Your task to perform on an android device: delete browsing data in the chrome app Image 0: 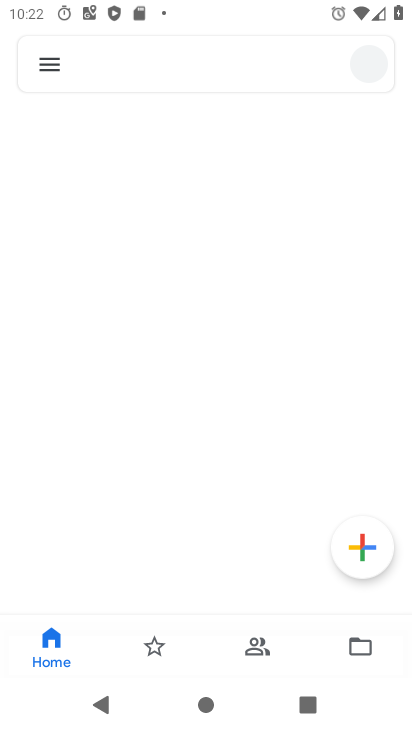
Step 0: drag from (249, 693) to (71, 119)
Your task to perform on an android device: delete browsing data in the chrome app Image 1: 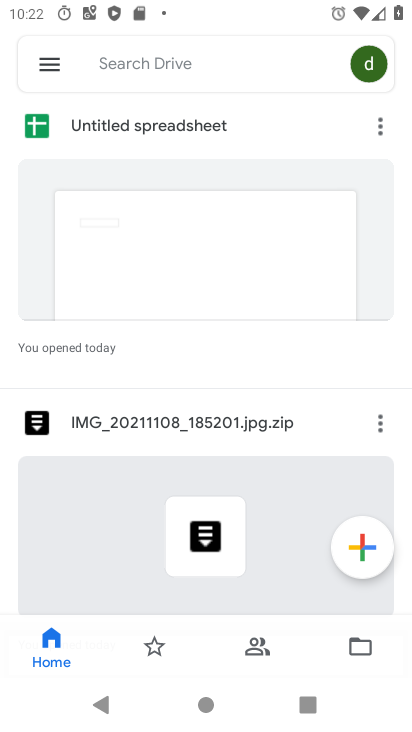
Step 1: press back button
Your task to perform on an android device: delete browsing data in the chrome app Image 2: 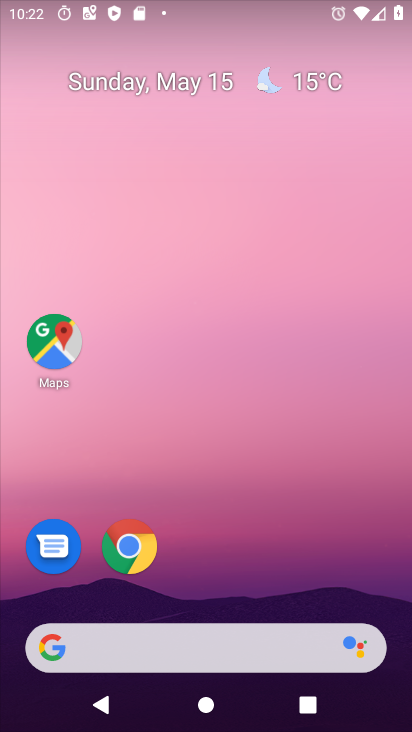
Step 2: drag from (270, 641) to (84, 107)
Your task to perform on an android device: delete browsing data in the chrome app Image 3: 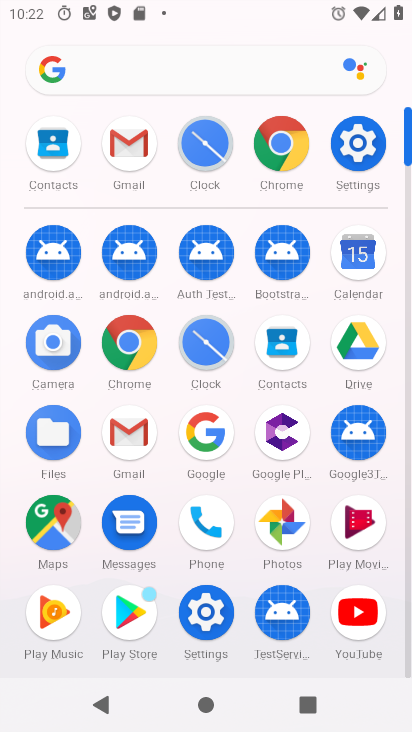
Step 3: click (277, 135)
Your task to perform on an android device: delete browsing data in the chrome app Image 4: 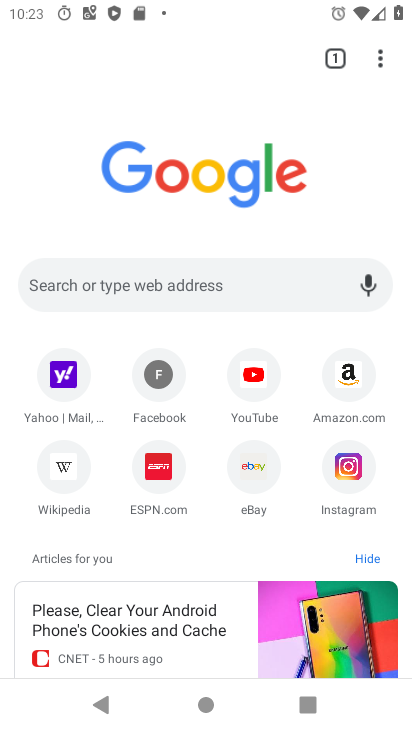
Step 4: click (378, 53)
Your task to perform on an android device: delete browsing data in the chrome app Image 5: 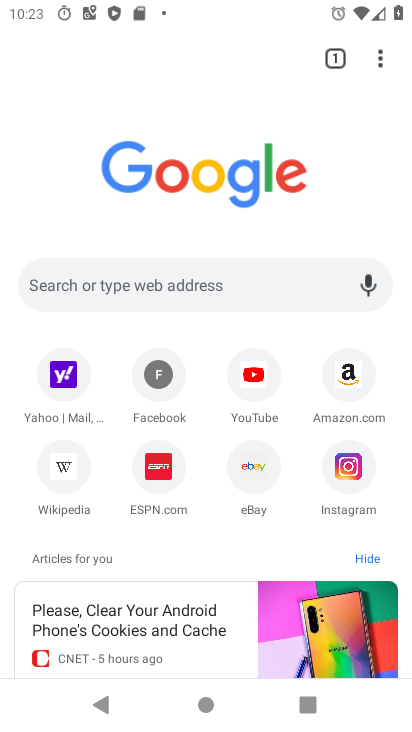
Step 5: click (378, 53)
Your task to perform on an android device: delete browsing data in the chrome app Image 6: 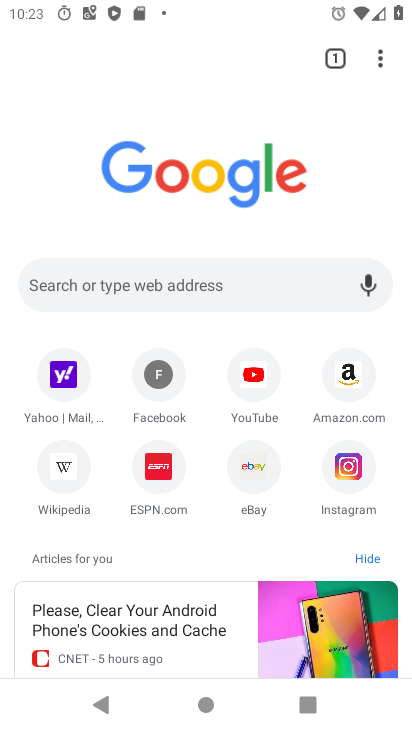
Step 6: click (378, 58)
Your task to perform on an android device: delete browsing data in the chrome app Image 7: 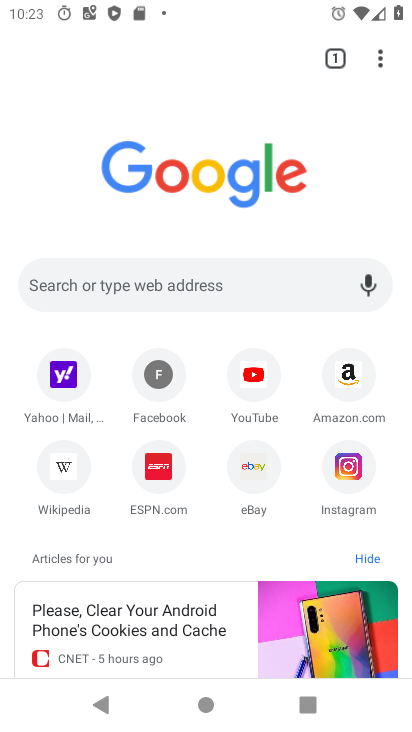
Step 7: drag from (380, 60) to (157, 489)
Your task to perform on an android device: delete browsing data in the chrome app Image 8: 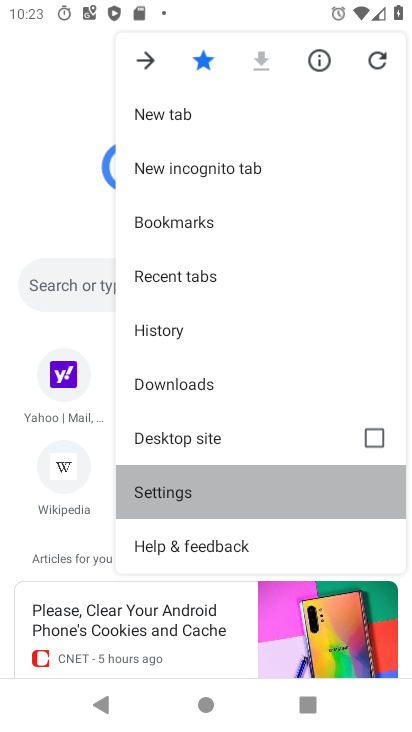
Step 8: click (157, 489)
Your task to perform on an android device: delete browsing data in the chrome app Image 9: 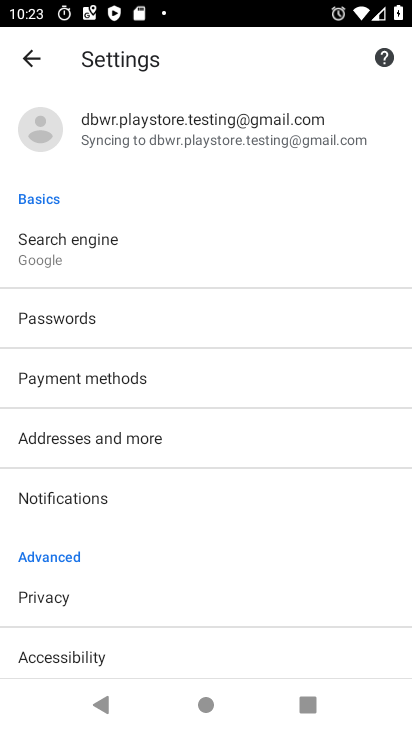
Step 9: drag from (79, 542) to (70, 165)
Your task to perform on an android device: delete browsing data in the chrome app Image 10: 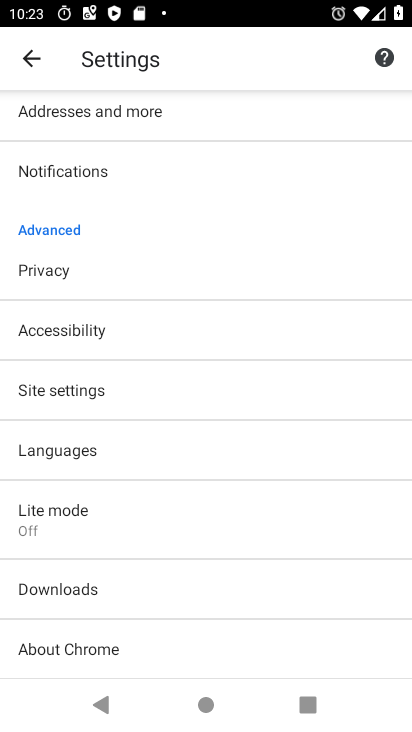
Step 10: drag from (82, 212) to (95, 543)
Your task to perform on an android device: delete browsing data in the chrome app Image 11: 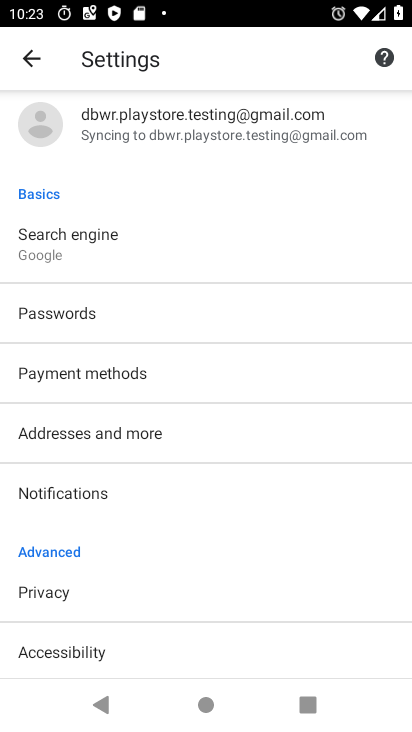
Step 11: drag from (66, 529) to (0, 108)
Your task to perform on an android device: delete browsing data in the chrome app Image 12: 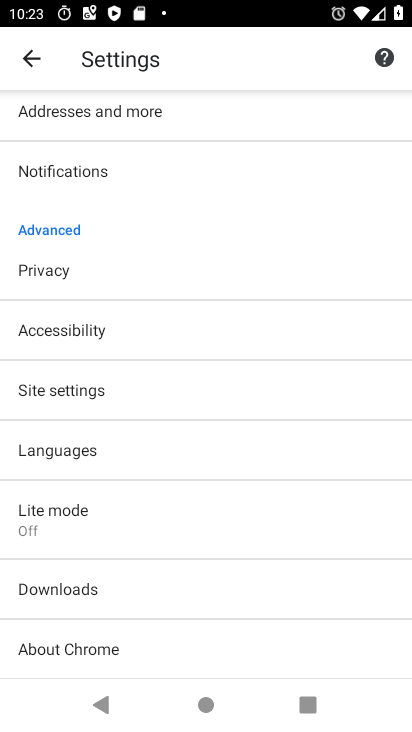
Step 12: drag from (57, 210) to (138, 479)
Your task to perform on an android device: delete browsing data in the chrome app Image 13: 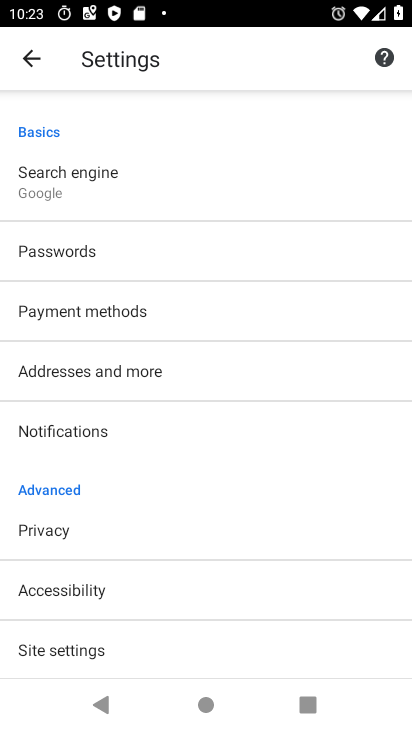
Step 13: click (23, 55)
Your task to perform on an android device: delete browsing data in the chrome app Image 14: 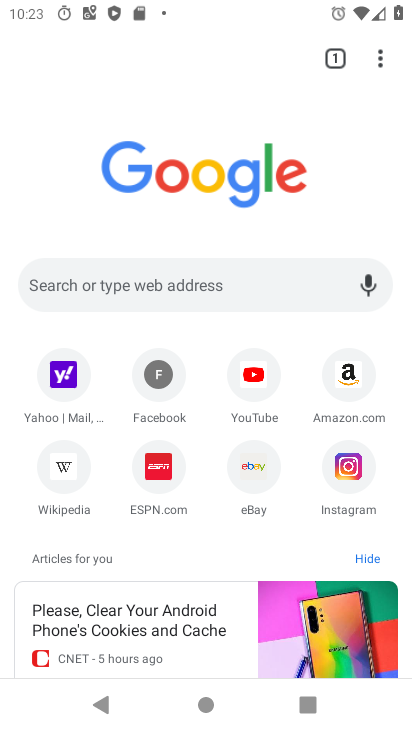
Step 14: click (381, 57)
Your task to perform on an android device: delete browsing data in the chrome app Image 15: 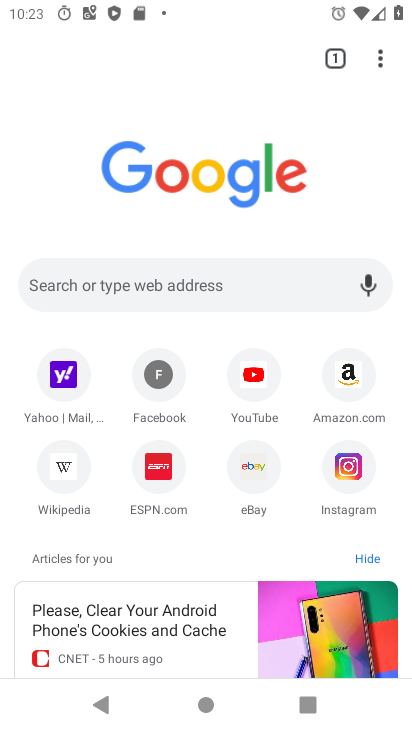
Step 15: drag from (378, 55) to (145, 324)
Your task to perform on an android device: delete browsing data in the chrome app Image 16: 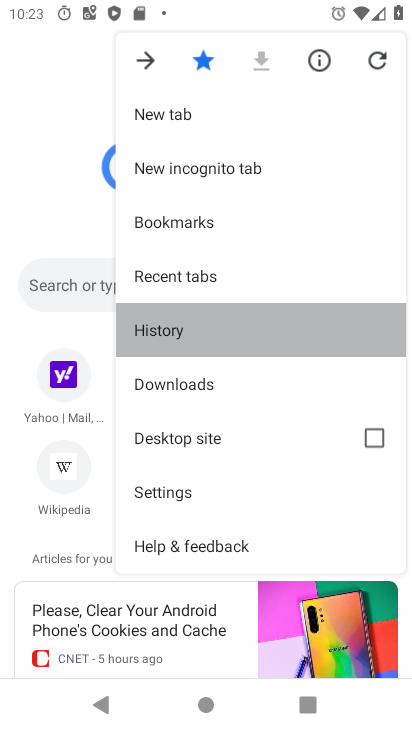
Step 16: click (145, 325)
Your task to perform on an android device: delete browsing data in the chrome app Image 17: 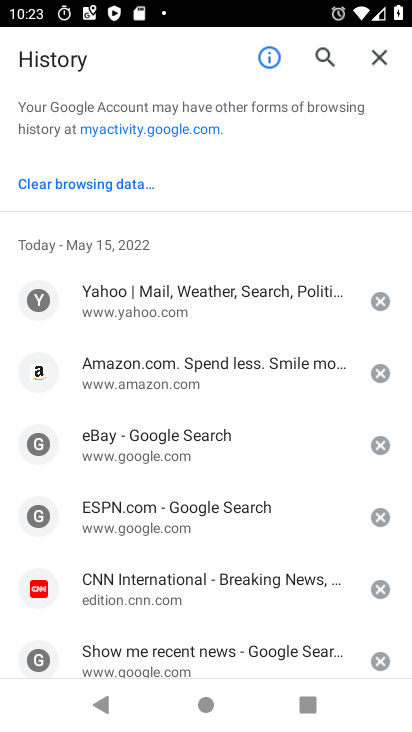
Step 17: click (83, 182)
Your task to perform on an android device: delete browsing data in the chrome app Image 18: 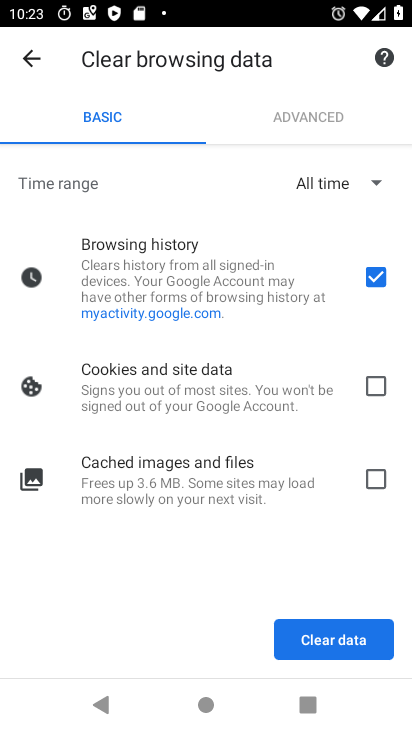
Step 18: click (345, 642)
Your task to perform on an android device: delete browsing data in the chrome app Image 19: 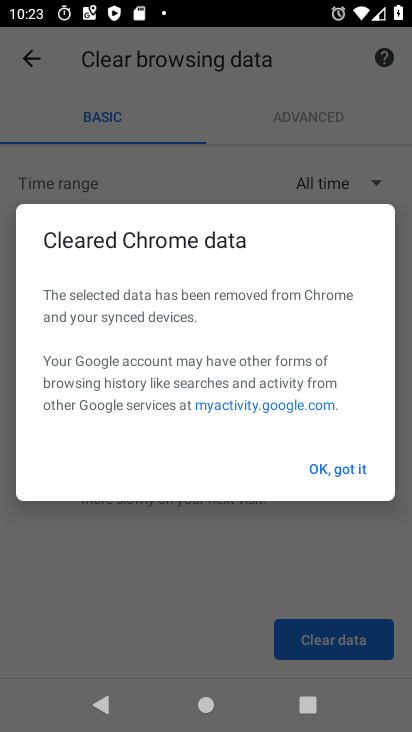
Step 19: click (344, 474)
Your task to perform on an android device: delete browsing data in the chrome app Image 20: 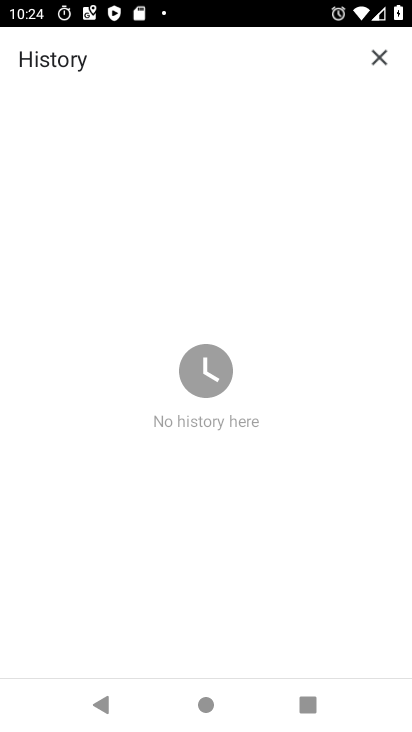
Step 20: task complete